Your task to perform on an android device: change notification settings in the gmail app Image 0: 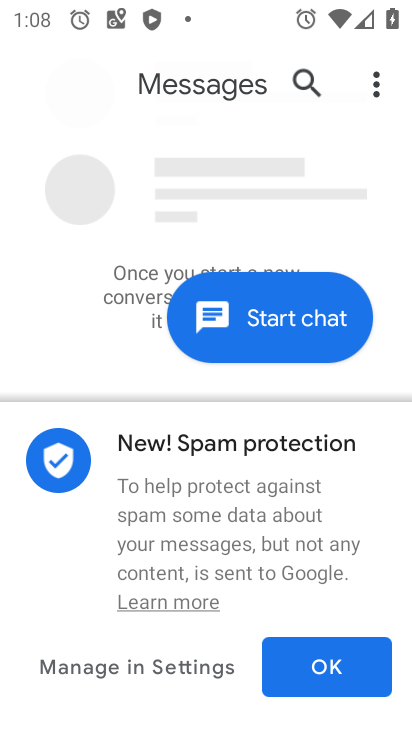
Step 0: press home button
Your task to perform on an android device: change notification settings in the gmail app Image 1: 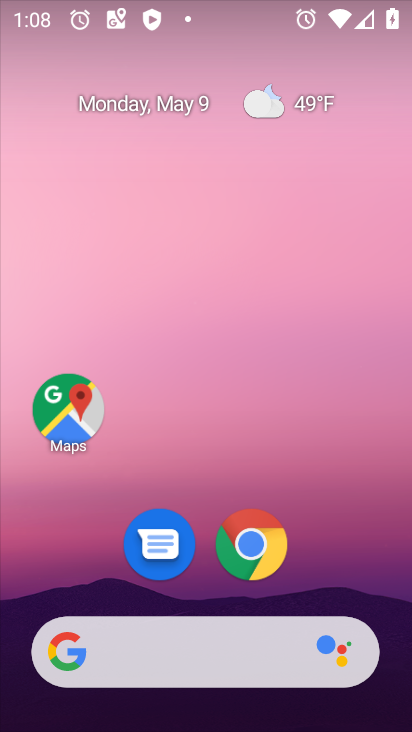
Step 1: drag from (233, 690) to (144, 234)
Your task to perform on an android device: change notification settings in the gmail app Image 2: 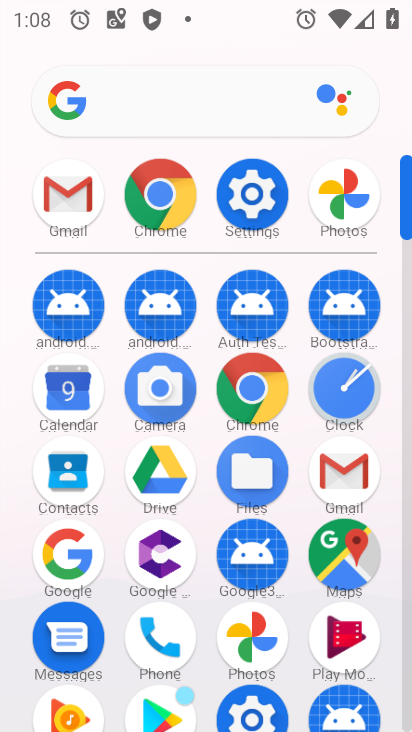
Step 2: click (337, 470)
Your task to perform on an android device: change notification settings in the gmail app Image 3: 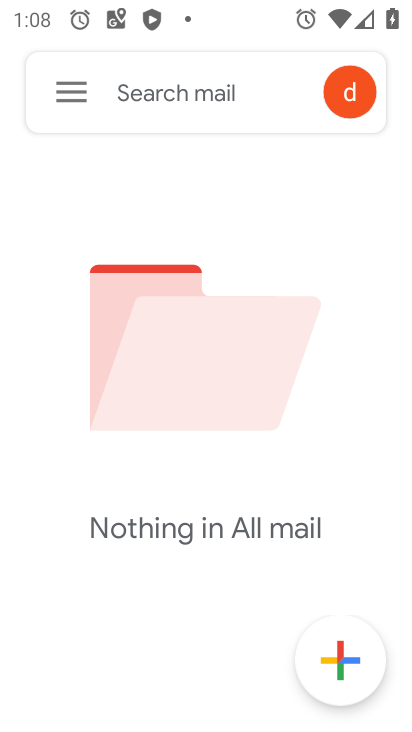
Step 3: click (58, 94)
Your task to perform on an android device: change notification settings in the gmail app Image 4: 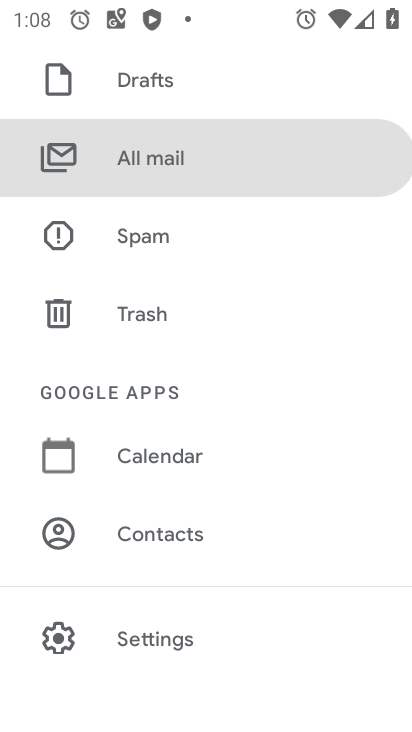
Step 4: click (132, 645)
Your task to perform on an android device: change notification settings in the gmail app Image 5: 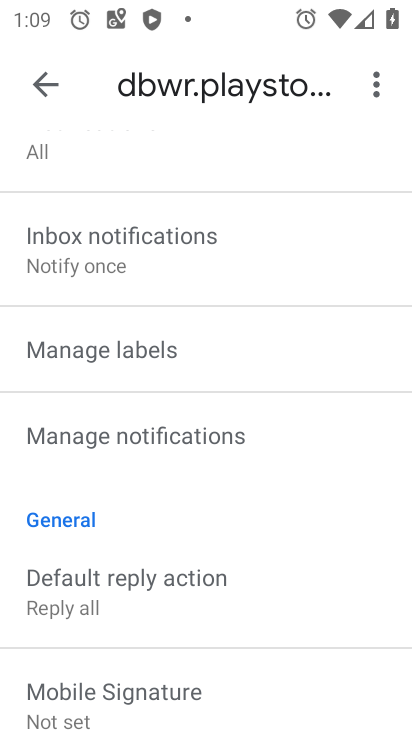
Step 5: click (114, 424)
Your task to perform on an android device: change notification settings in the gmail app Image 6: 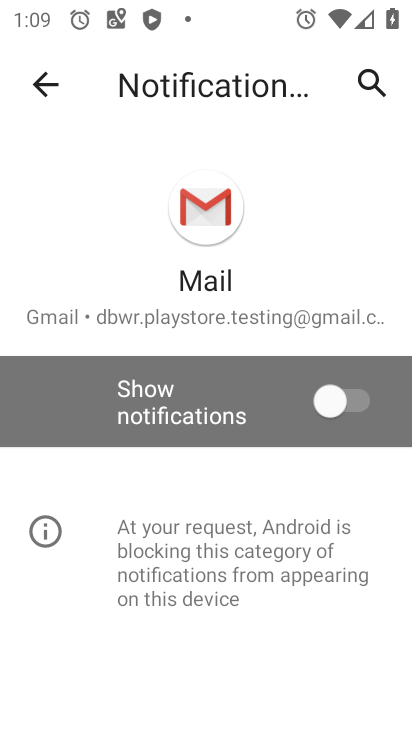
Step 6: click (345, 382)
Your task to perform on an android device: change notification settings in the gmail app Image 7: 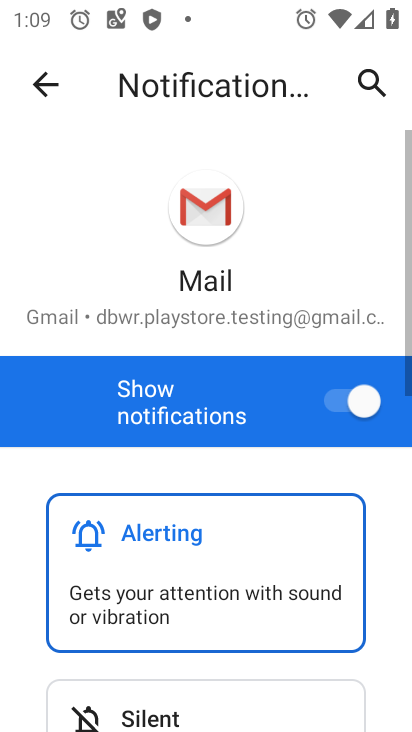
Step 7: task complete